Your task to perform on an android device: Search for pizza restaurants on Maps Image 0: 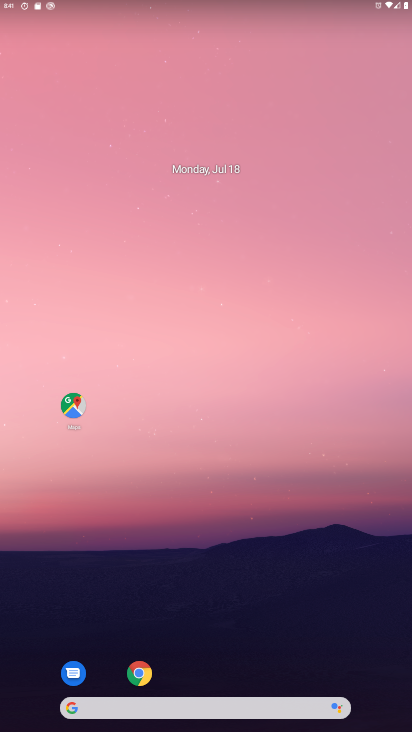
Step 0: click (77, 407)
Your task to perform on an android device: Search for pizza restaurants on Maps Image 1: 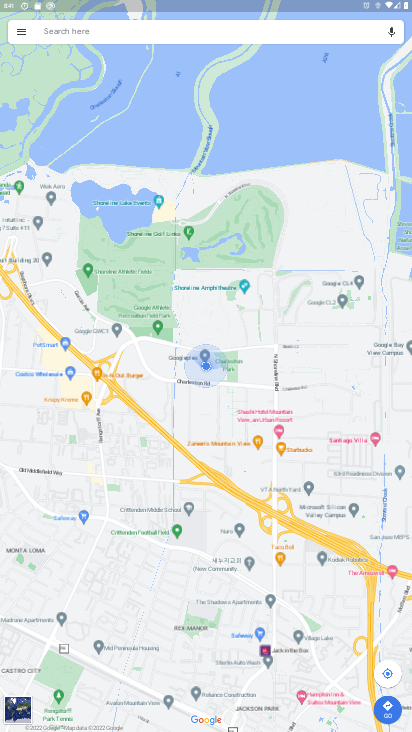
Step 1: click (92, 34)
Your task to perform on an android device: Search for pizza restaurants on Maps Image 2: 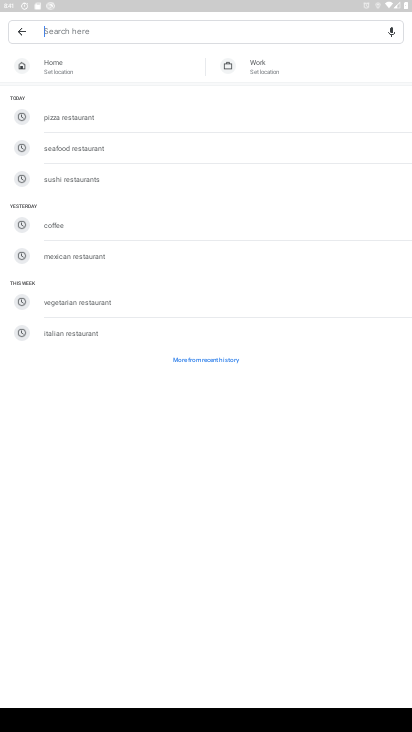
Step 2: type "pizza restaurants"
Your task to perform on an android device: Search for pizza restaurants on Maps Image 3: 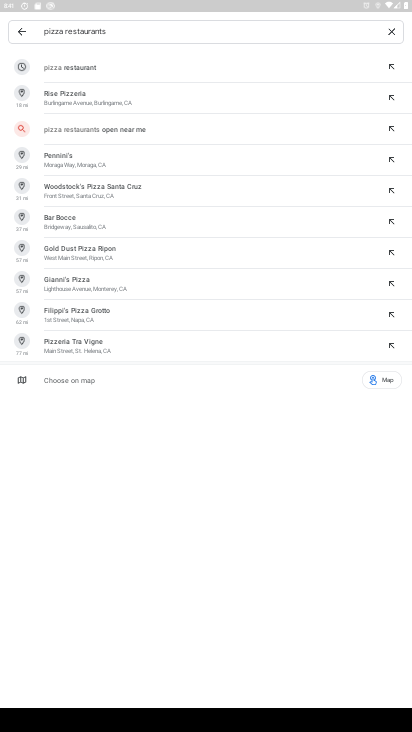
Step 3: click (93, 65)
Your task to perform on an android device: Search for pizza restaurants on Maps Image 4: 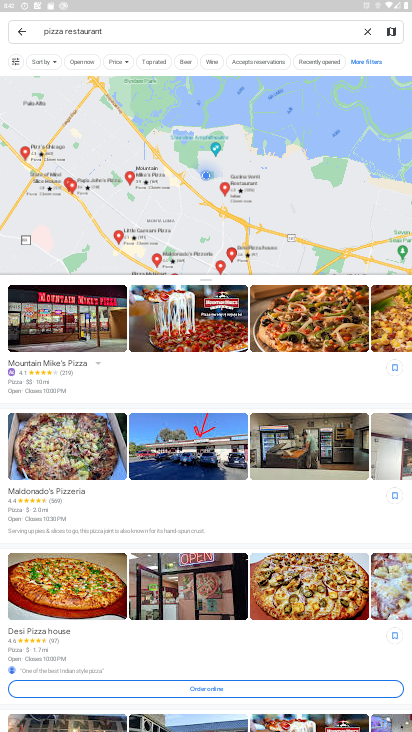
Step 4: task complete